Your task to perform on an android device: turn off wifi Image 0: 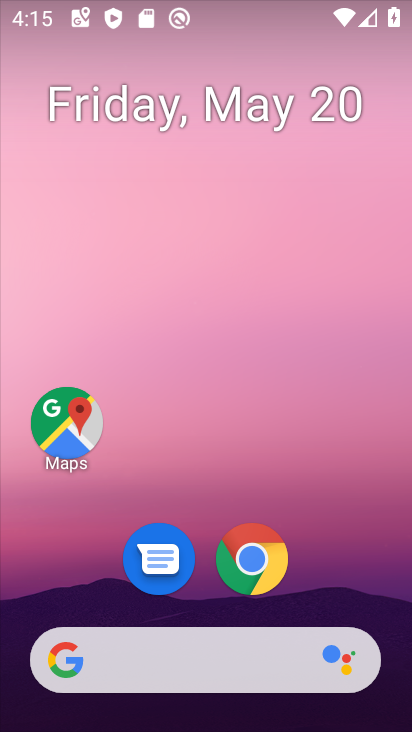
Step 0: drag from (216, 627) to (231, 245)
Your task to perform on an android device: turn off wifi Image 1: 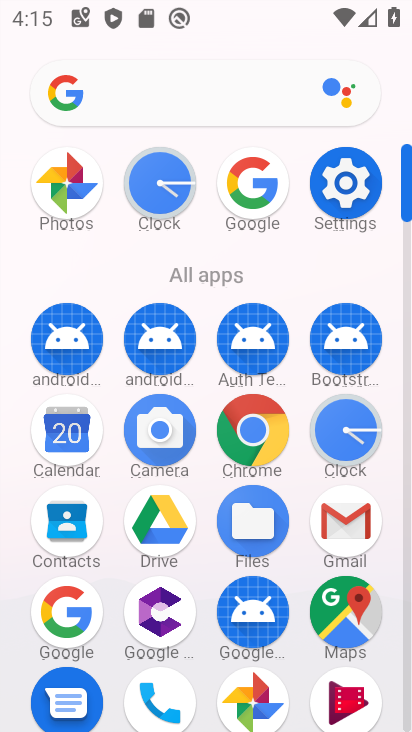
Step 1: click (350, 191)
Your task to perform on an android device: turn off wifi Image 2: 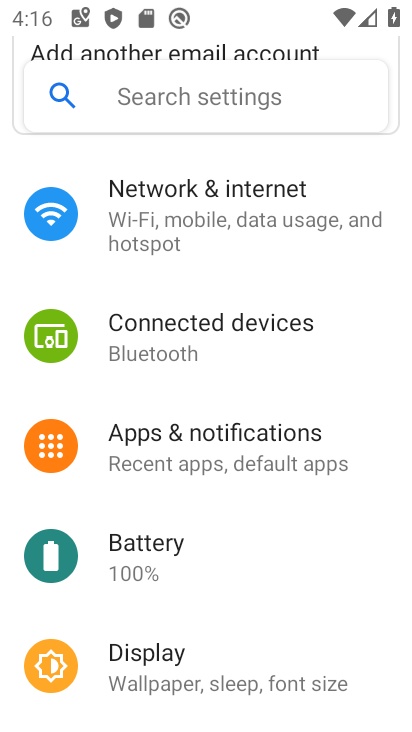
Step 2: click (247, 225)
Your task to perform on an android device: turn off wifi Image 3: 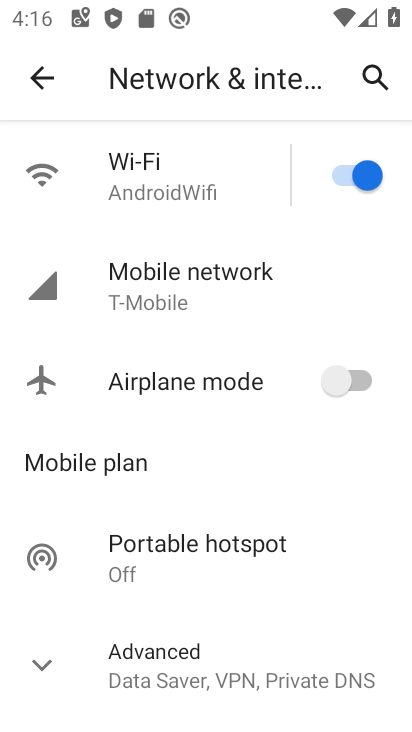
Step 3: click (347, 173)
Your task to perform on an android device: turn off wifi Image 4: 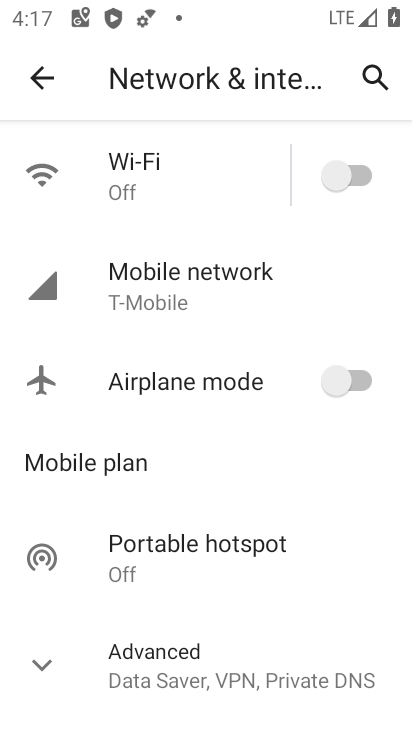
Step 4: click (353, 178)
Your task to perform on an android device: turn off wifi Image 5: 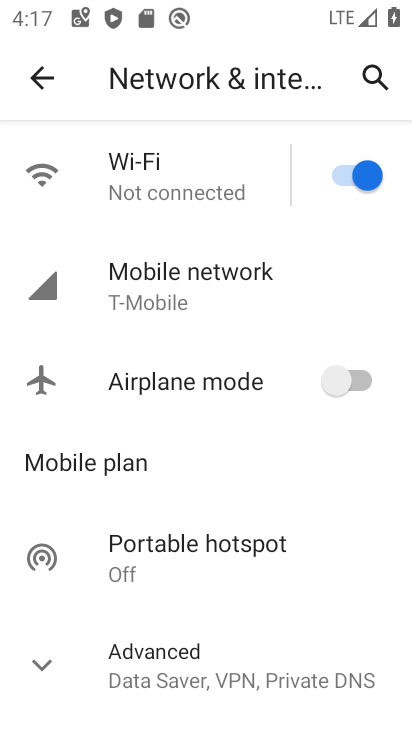
Step 5: click (343, 168)
Your task to perform on an android device: turn off wifi Image 6: 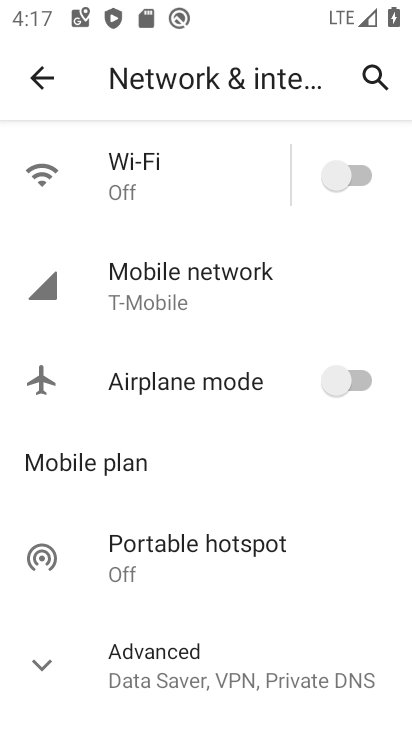
Step 6: task complete